Your task to perform on an android device: Do I have any events this weekend? Image 0: 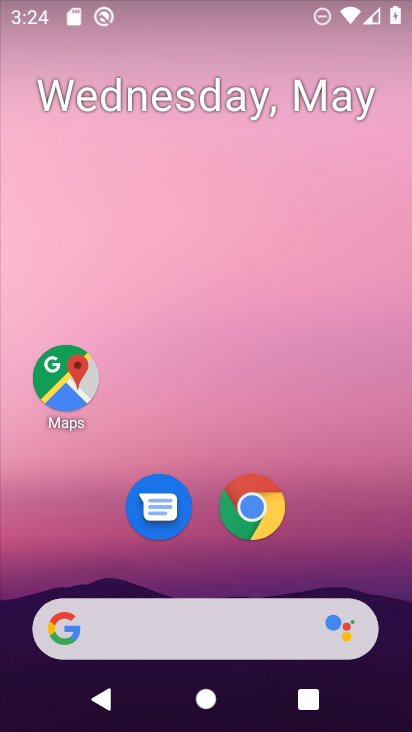
Step 0: drag from (193, 512) to (270, 69)
Your task to perform on an android device: Do I have any events this weekend? Image 1: 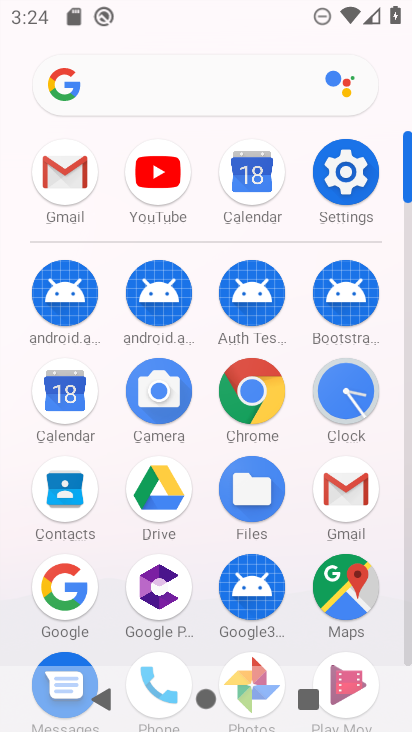
Step 1: drag from (76, 390) to (193, 99)
Your task to perform on an android device: Do I have any events this weekend? Image 2: 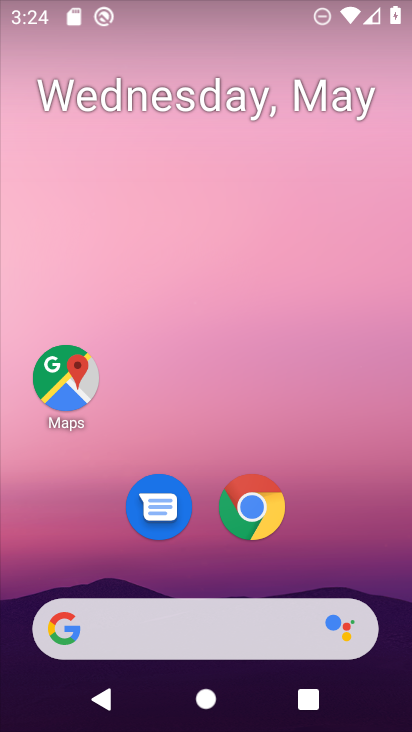
Step 2: click (164, 644)
Your task to perform on an android device: Do I have any events this weekend? Image 3: 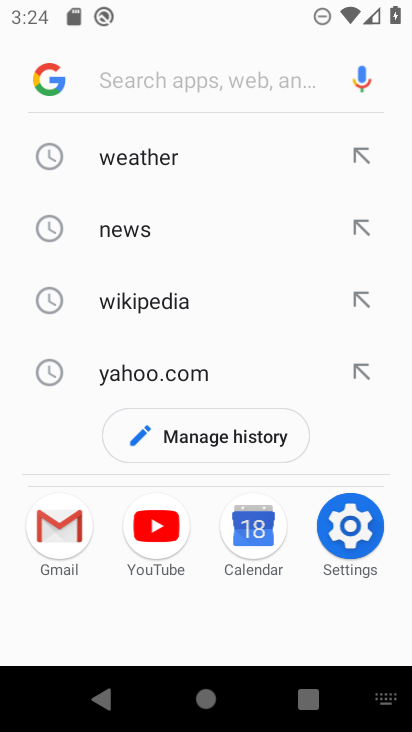
Step 3: click (132, 156)
Your task to perform on an android device: Do I have any events this weekend? Image 4: 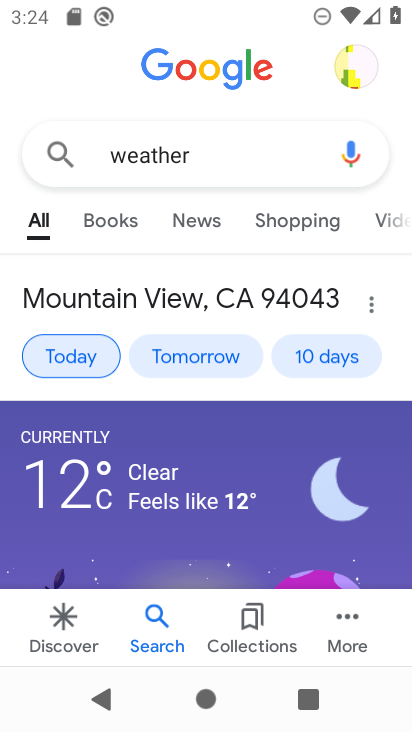
Step 4: click (321, 366)
Your task to perform on an android device: Do I have any events this weekend? Image 5: 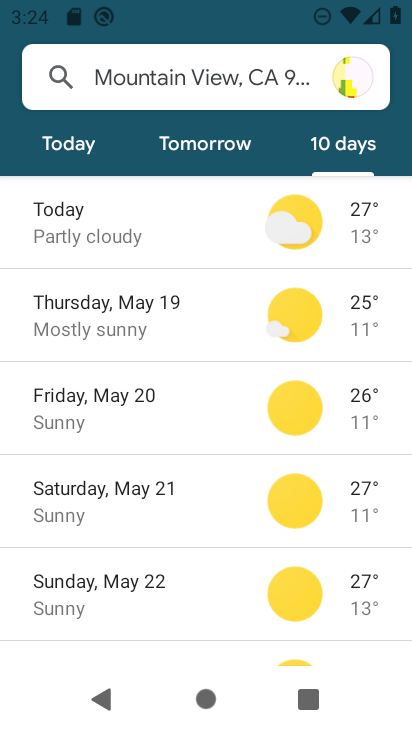
Step 5: task complete